Your task to perform on an android device: Open Google Chrome and click the shortcut for Amazon.com Image 0: 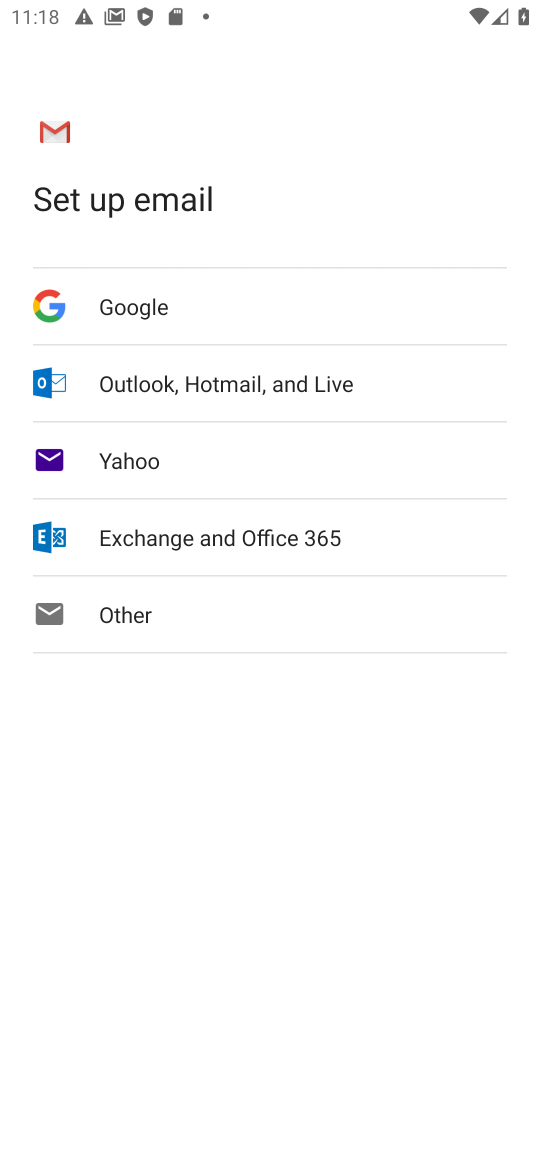
Step 0: press home button
Your task to perform on an android device: Open Google Chrome and click the shortcut for Amazon.com Image 1: 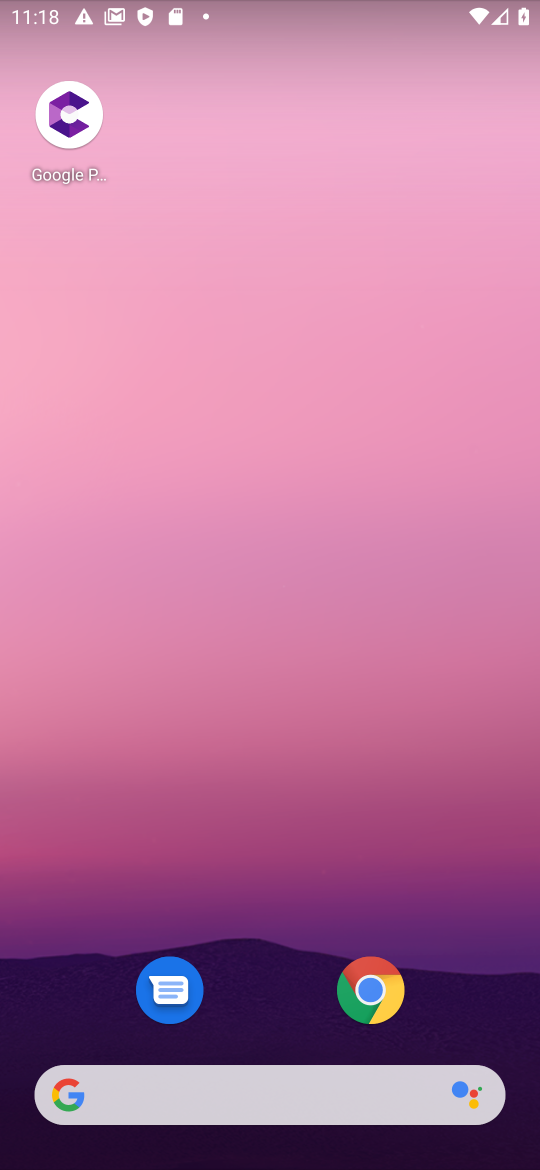
Step 1: click (375, 997)
Your task to perform on an android device: Open Google Chrome and click the shortcut for Amazon.com Image 2: 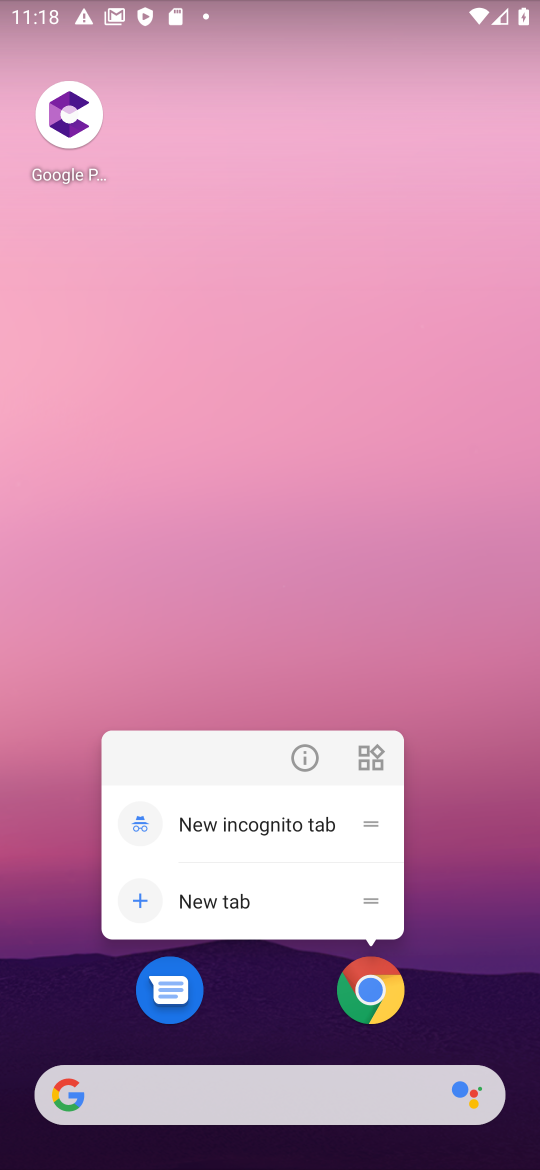
Step 2: click (392, 998)
Your task to perform on an android device: Open Google Chrome and click the shortcut for Amazon.com Image 3: 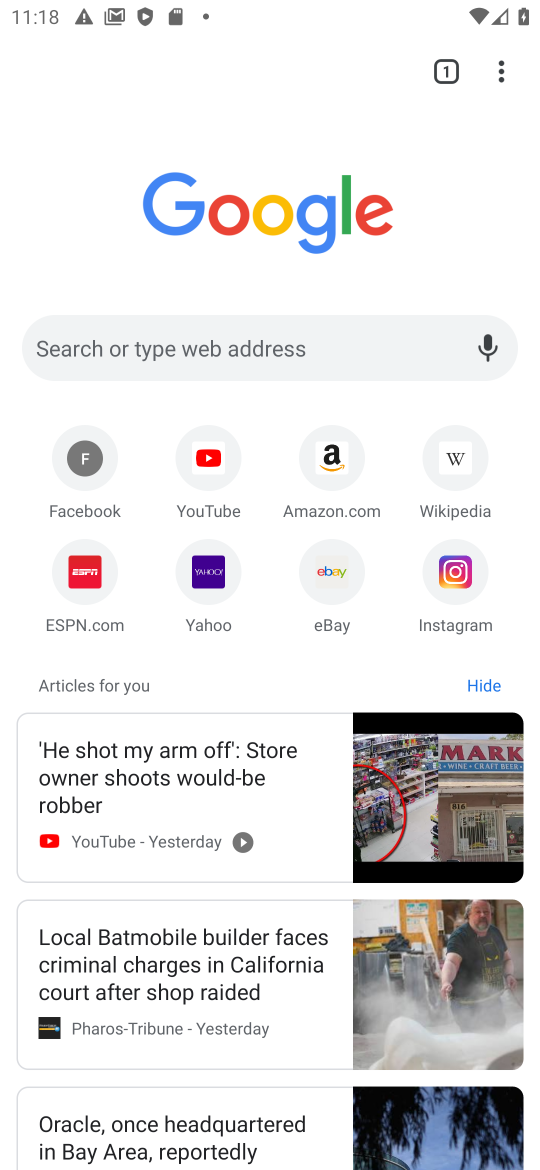
Step 3: click (336, 458)
Your task to perform on an android device: Open Google Chrome and click the shortcut for Amazon.com Image 4: 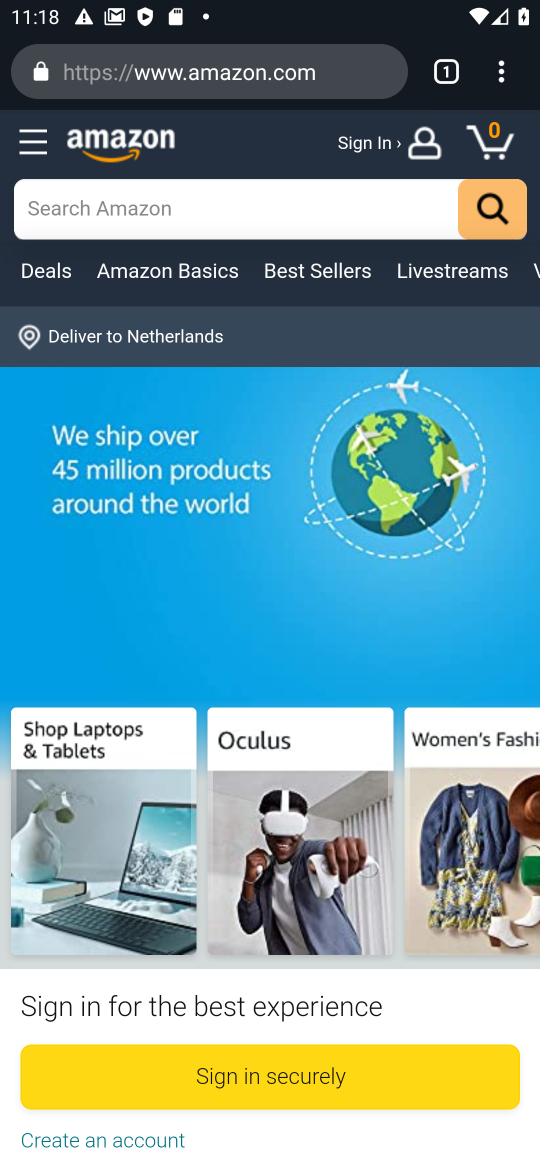
Step 4: task complete